Your task to perform on an android device: toggle show notifications on the lock screen Image 0: 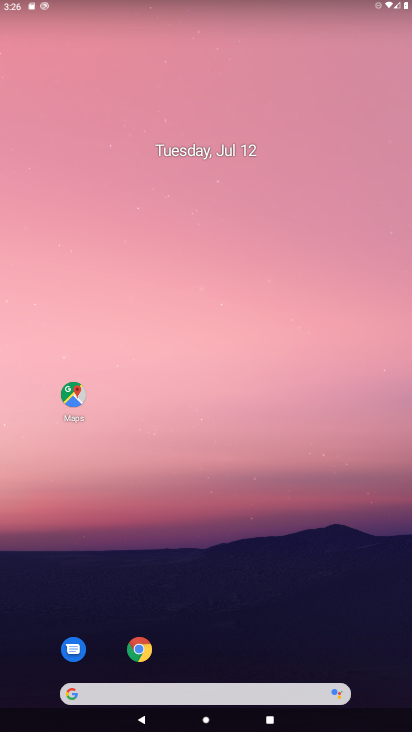
Step 0: drag from (300, 663) to (274, 245)
Your task to perform on an android device: toggle show notifications on the lock screen Image 1: 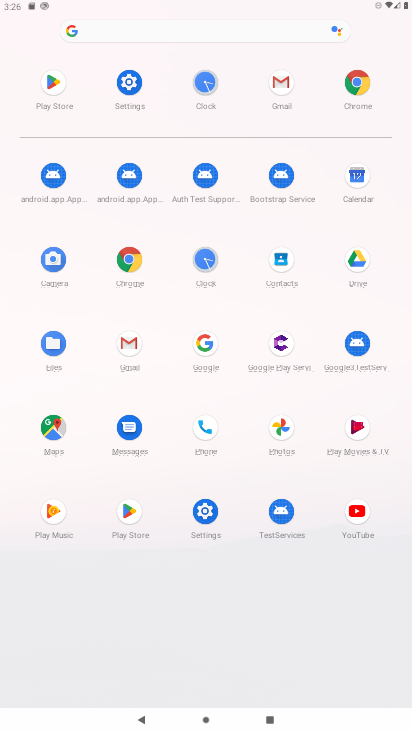
Step 1: click (125, 108)
Your task to perform on an android device: toggle show notifications on the lock screen Image 2: 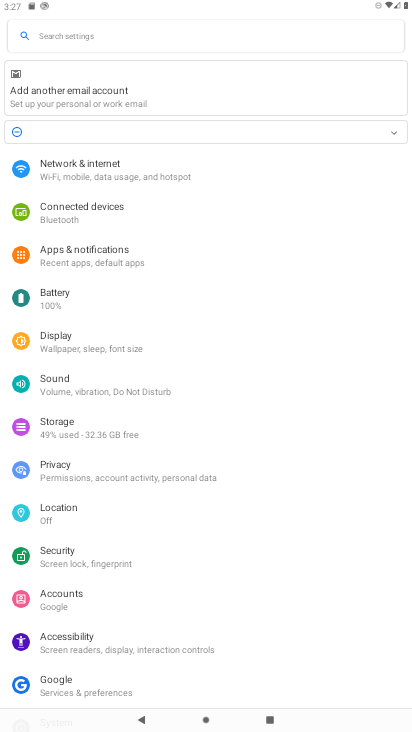
Step 2: drag from (129, 638) to (132, 376)
Your task to perform on an android device: toggle show notifications on the lock screen Image 3: 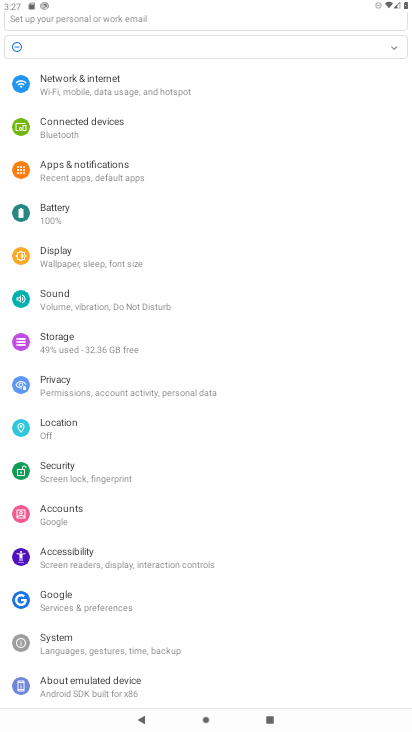
Step 3: click (123, 191)
Your task to perform on an android device: toggle show notifications on the lock screen Image 4: 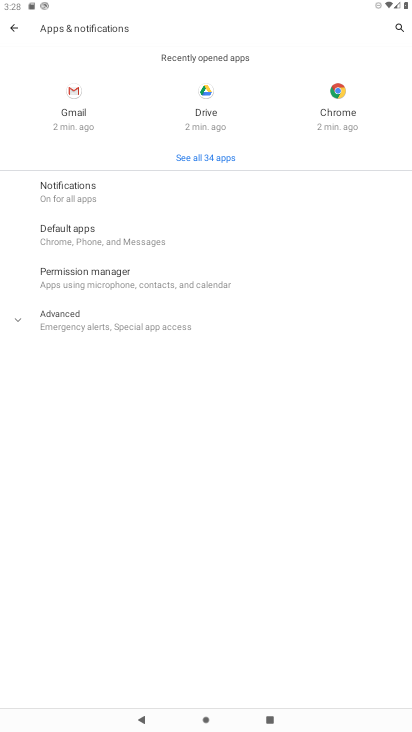
Step 4: click (116, 318)
Your task to perform on an android device: toggle show notifications on the lock screen Image 5: 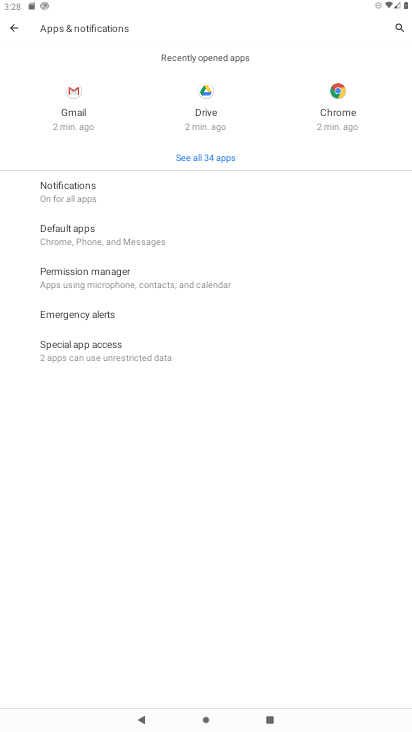
Step 5: click (71, 190)
Your task to perform on an android device: toggle show notifications on the lock screen Image 6: 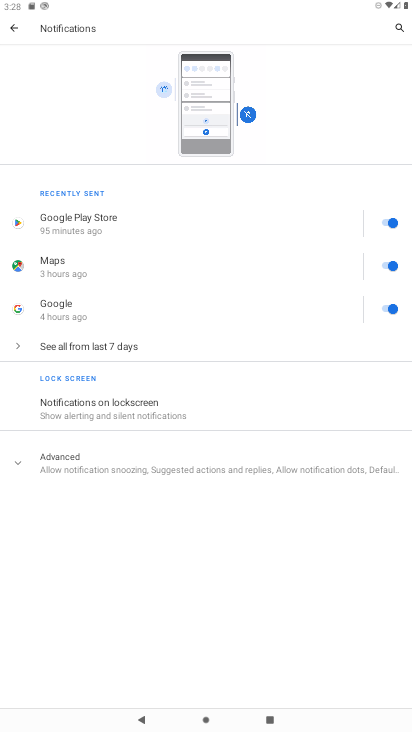
Step 6: click (108, 399)
Your task to perform on an android device: toggle show notifications on the lock screen Image 7: 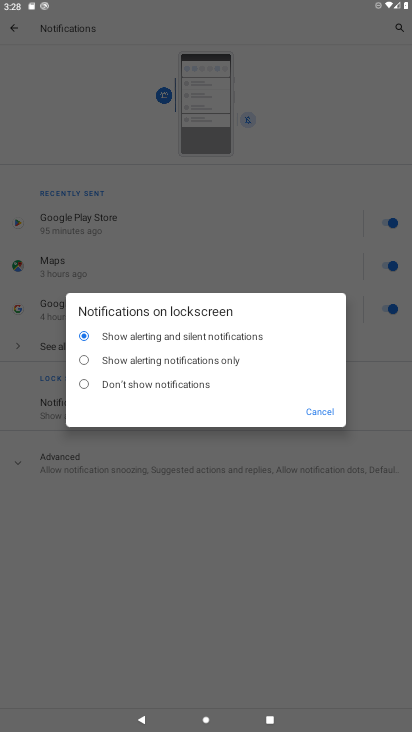
Step 7: click (107, 358)
Your task to perform on an android device: toggle show notifications on the lock screen Image 8: 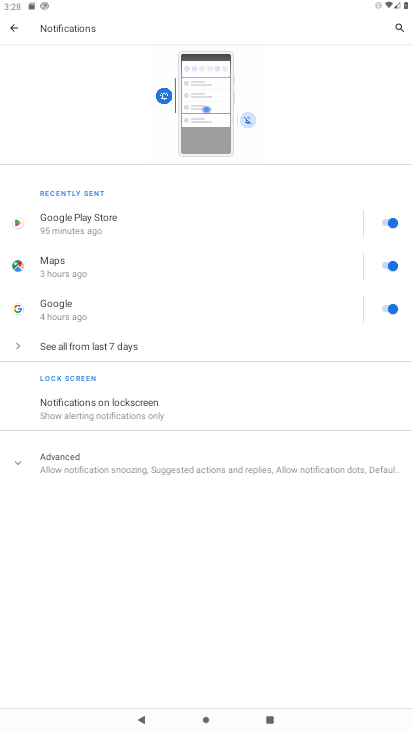
Step 8: task complete